Your task to perform on an android device: Toggle the flashlight Image 0: 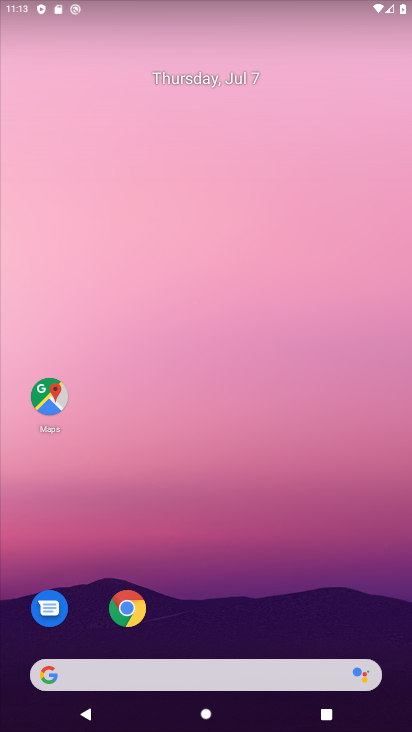
Step 0: drag from (23, 637) to (333, 53)
Your task to perform on an android device: Toggle the flashlight Image 1: 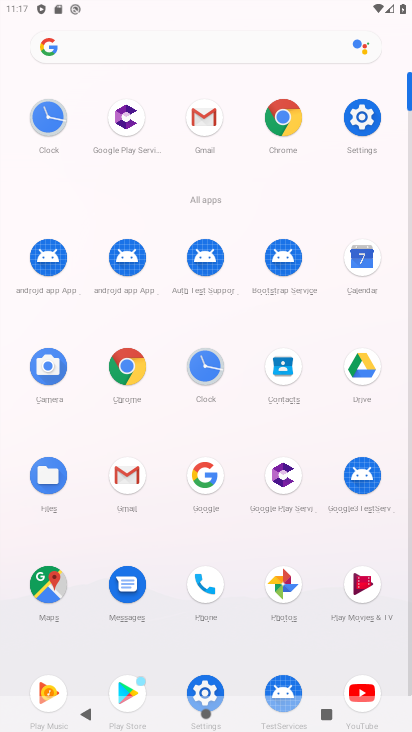
Step 1: task complete